Your task to perform on an android device: Clear the shopping cart on walmart. Add "acer predator" to the cart on walmart Image 0: 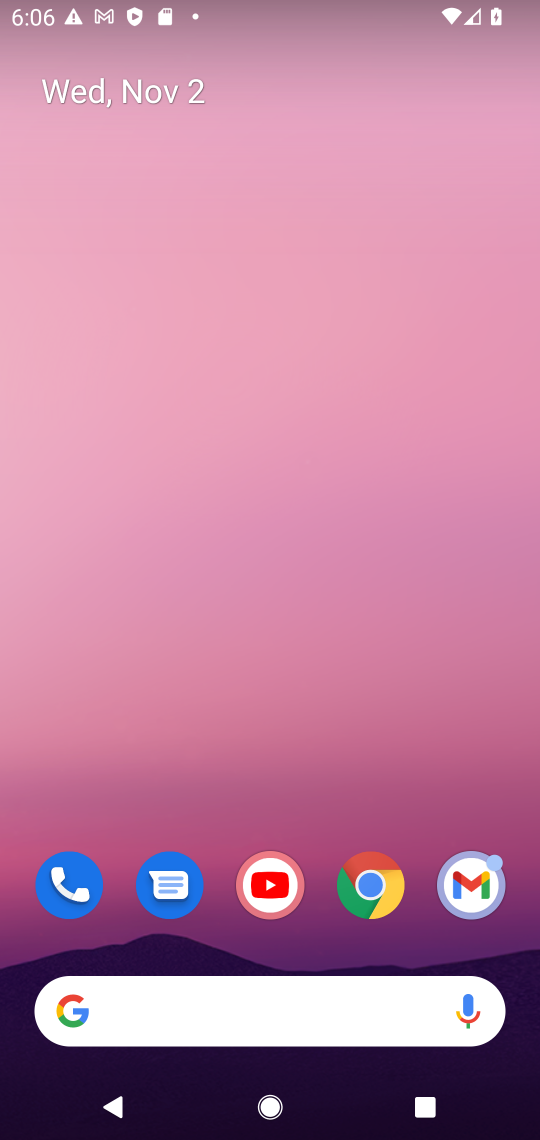
Step 0: drag from (288, 857) to (217, 159)
Your task to perform on an android device: Clear the shopping cart on walmart. Add "acer predator" to the cart on walmart Image 1: 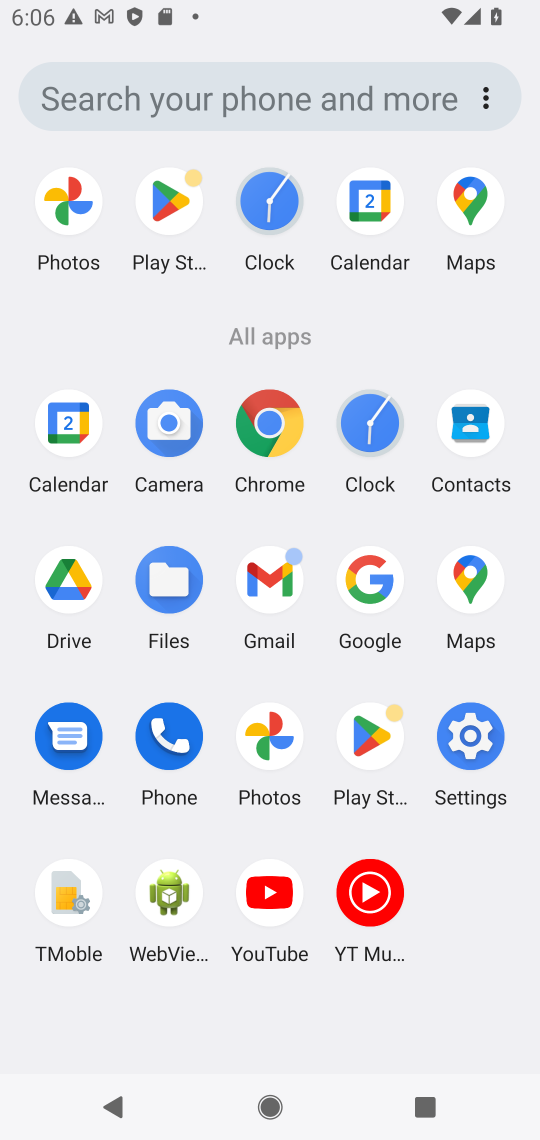
Step 1: click (373, 598)
Your task to perform on an android device: Clear the shopping cart on walmart. Add "acer predator" to the cart on walmart Image 2: 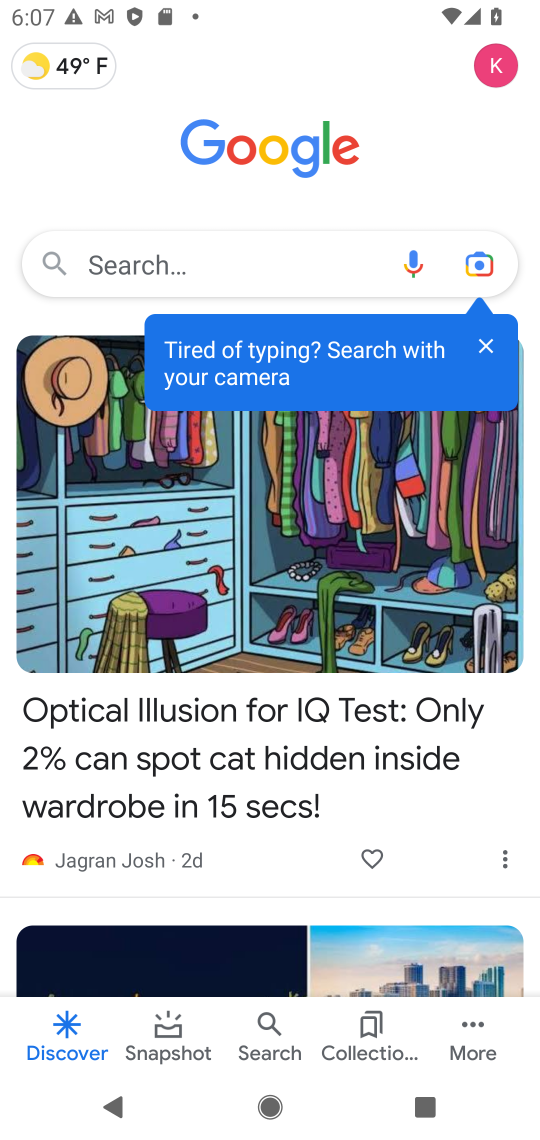
Step 2: click (199, 255)
Your task to perform on an android device: Clear the shopping cart on walmart. Add "acer predator" to the cart on walmart Image 3: 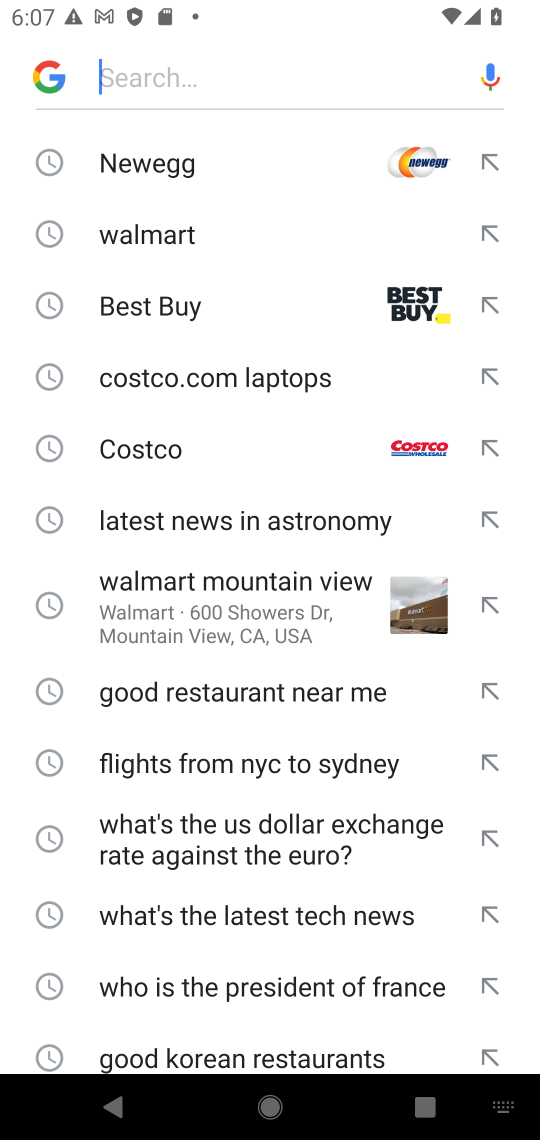
Step 3: type "walmart"
Your task to perform on an android device: Clear the shopping cart on walmart. Add "acer predator" to the cart on walmart Image 4: 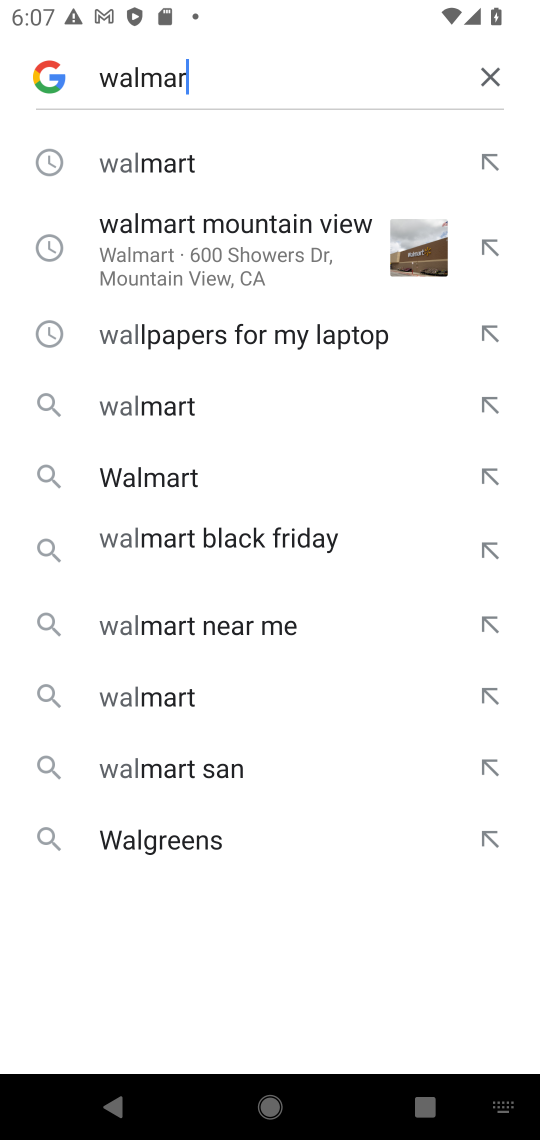
Step 4: type ""
Your task to perform on an android device: Clear the shopping cart on walmart. Add "acer predator" to the cart on walmart Image 5: 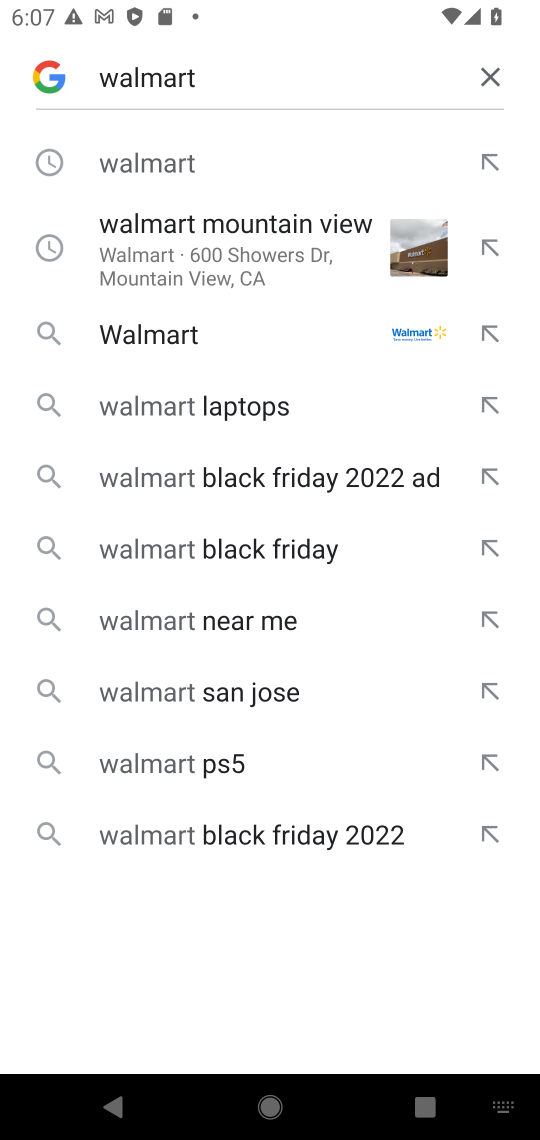
Step 5: click (164, 161)
Your task to perform on an android device: Clear the shopping cart on walmart. Add "acer predator" to the cart on walmart Image 6: 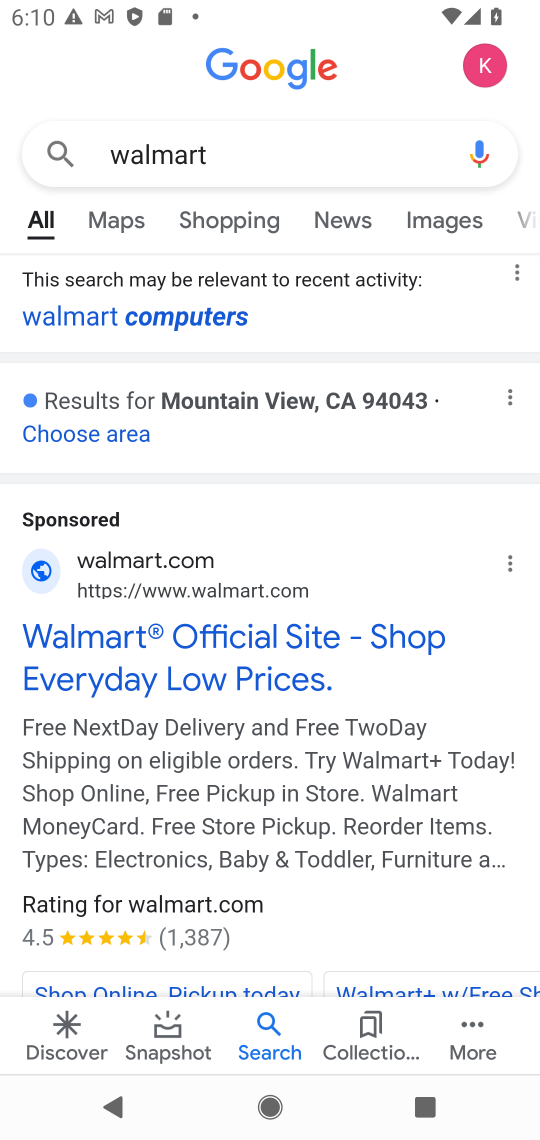
Step 6: click (267, 654)
Your task to perform on an android device: Clear the shopping cart on walmart. Add "acer predator" to the cart on walmart Image 7: 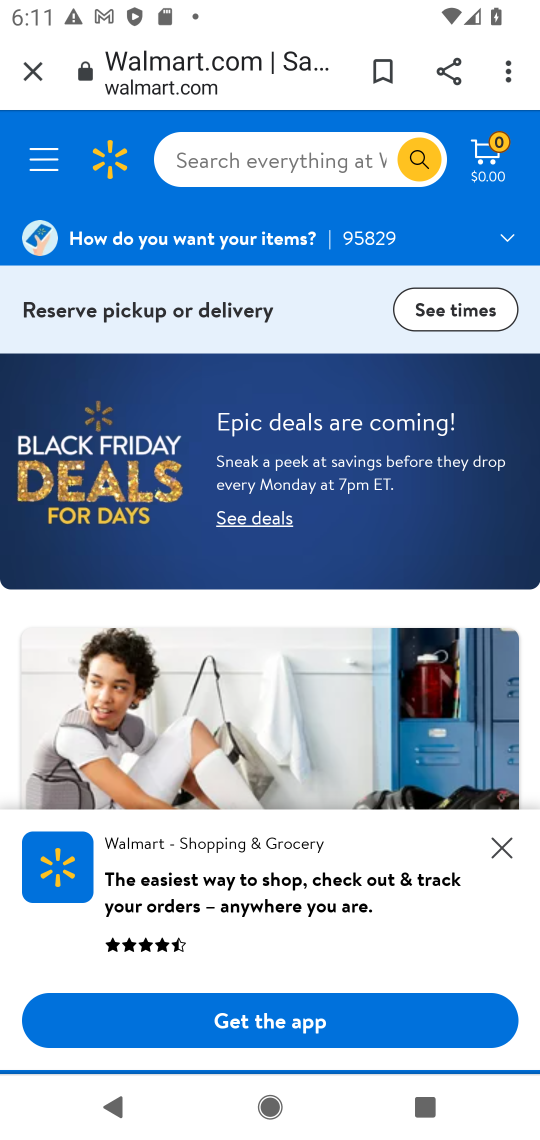
Step 7: click (299, 151)
Your task to perform on an android device: Clear the shopping cart on walmart. Add "acer predator" to the cart on walmart Image 8: 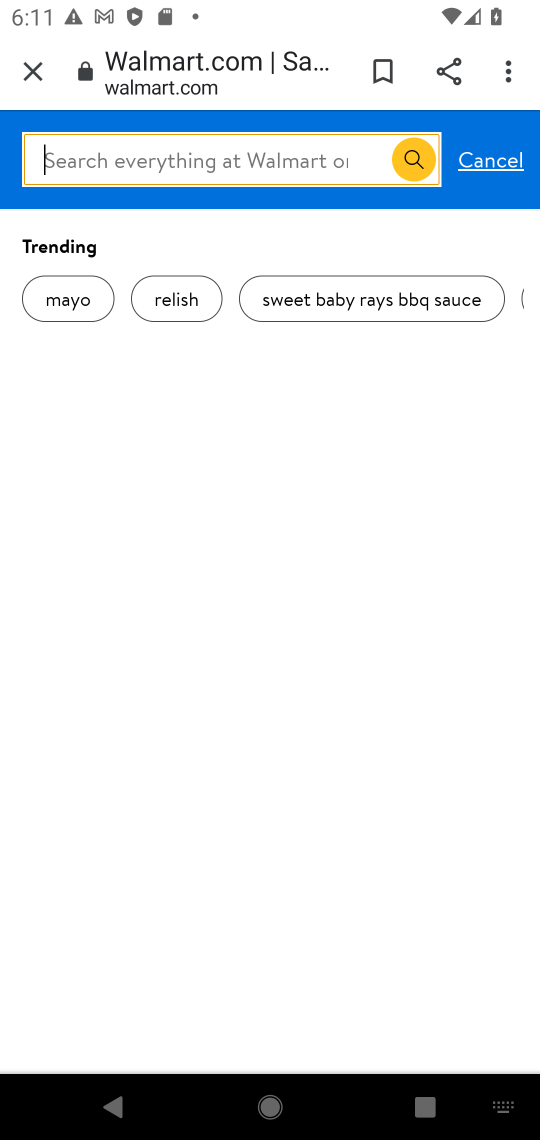
Step 8: type "acer predator"
Your task to perform on an android device: Clear the shopping cart on walmart. Add "acer predator" to the cart on walmart Image 9: 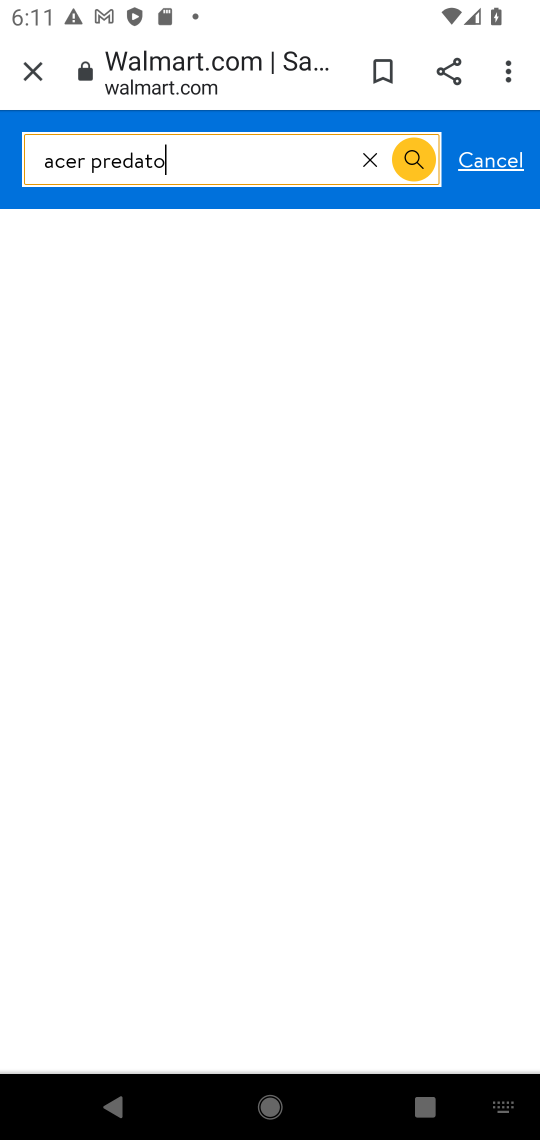
Step 9: type ""
Your task to perform on an android device: Clear the shopping cart on walmart. Add "acer predator" to the cart on walmart Image 10: 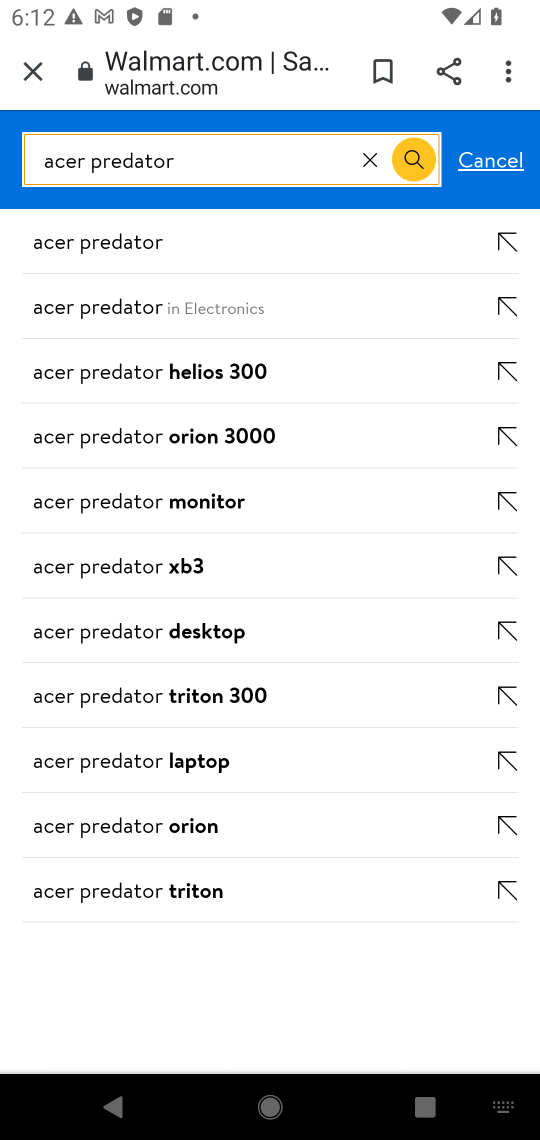
Step 10: click (97, 242)
Your task to perform on an android device: Clear the shopping cart on walmart. Add "acer predator" to the cart on walmart Image 11: 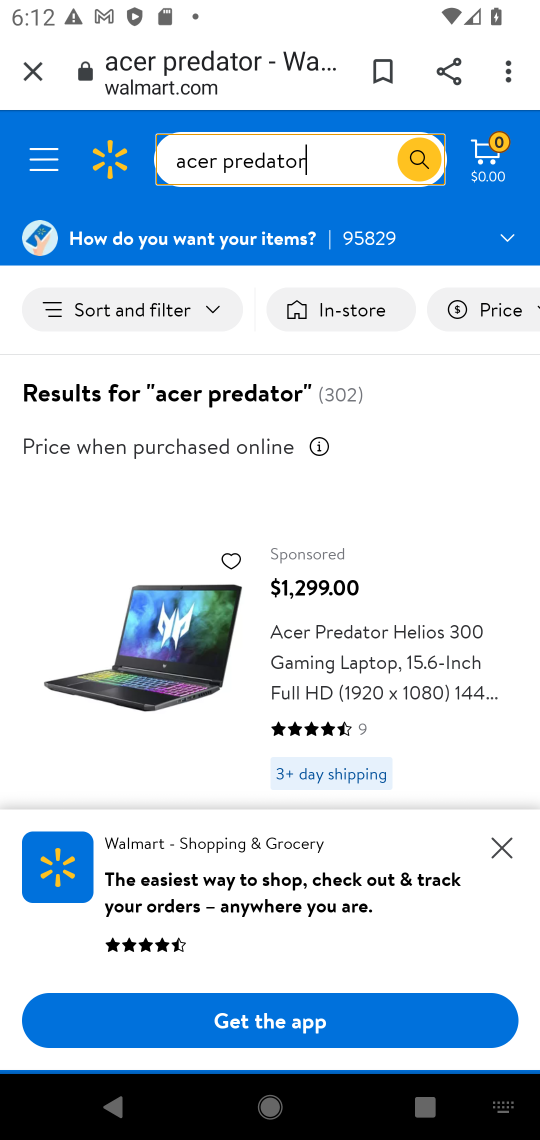
Step 11: click (344, 638)
Your task to perform on an android device: Clear the shopping cart on walmart. Add "acer predator" to the cart on walmart Image 12: 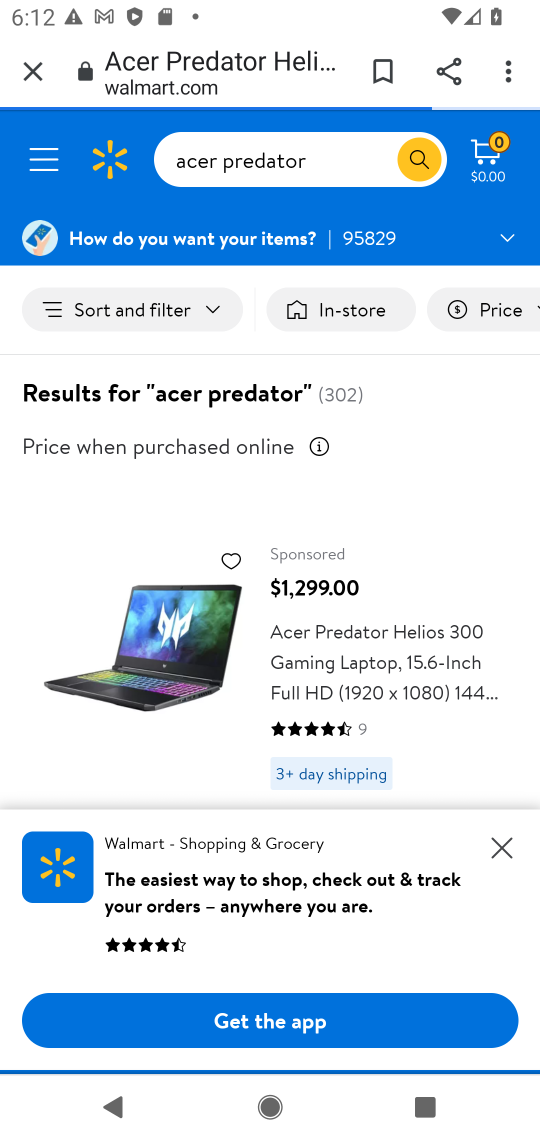
Step 12: click (502, 837)
Your task to perform on an android device: Clear the shopping cart on walmart. Add "acer predator" to the cart on walmart Image 13: 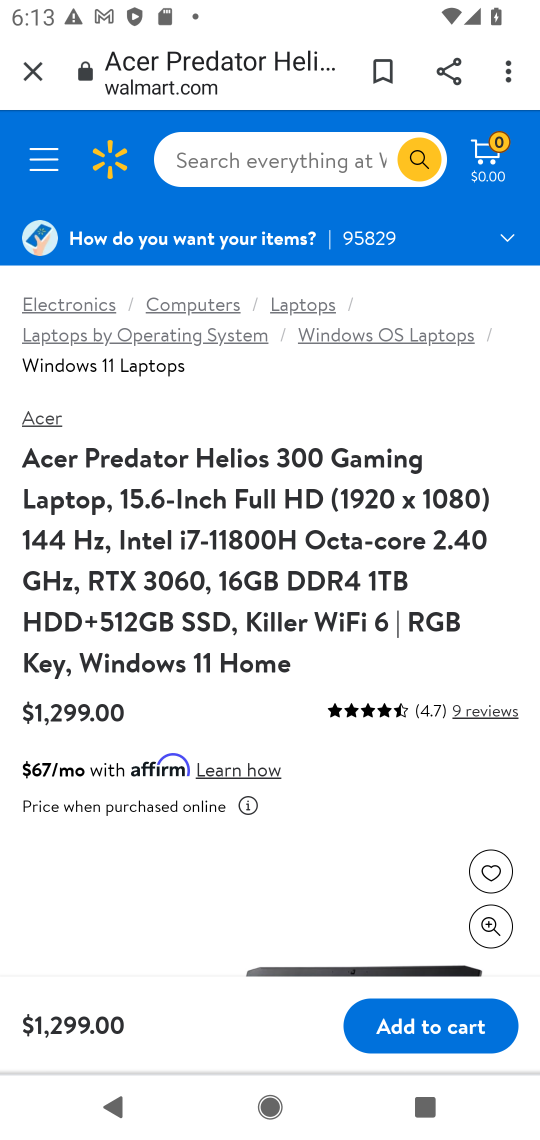
Step 13: click (414, 1025)
Your task to perform on an android device: Clear the shopping cart on walmart. Add "acer predator" to the cart on walmart Image 14: 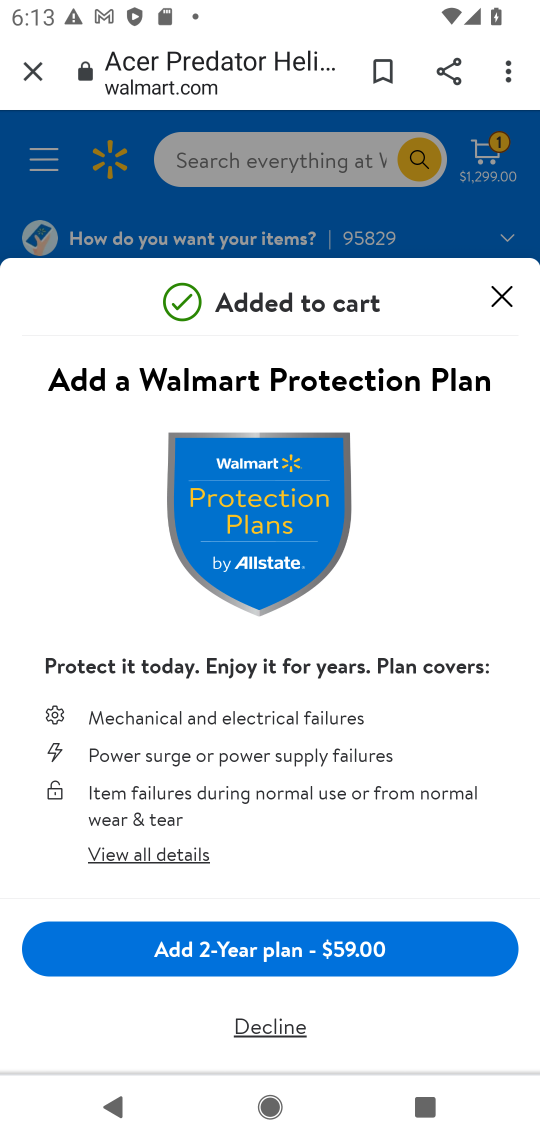
Step 14: task complete